Your task to perform on an android device: turn off location Image 0: 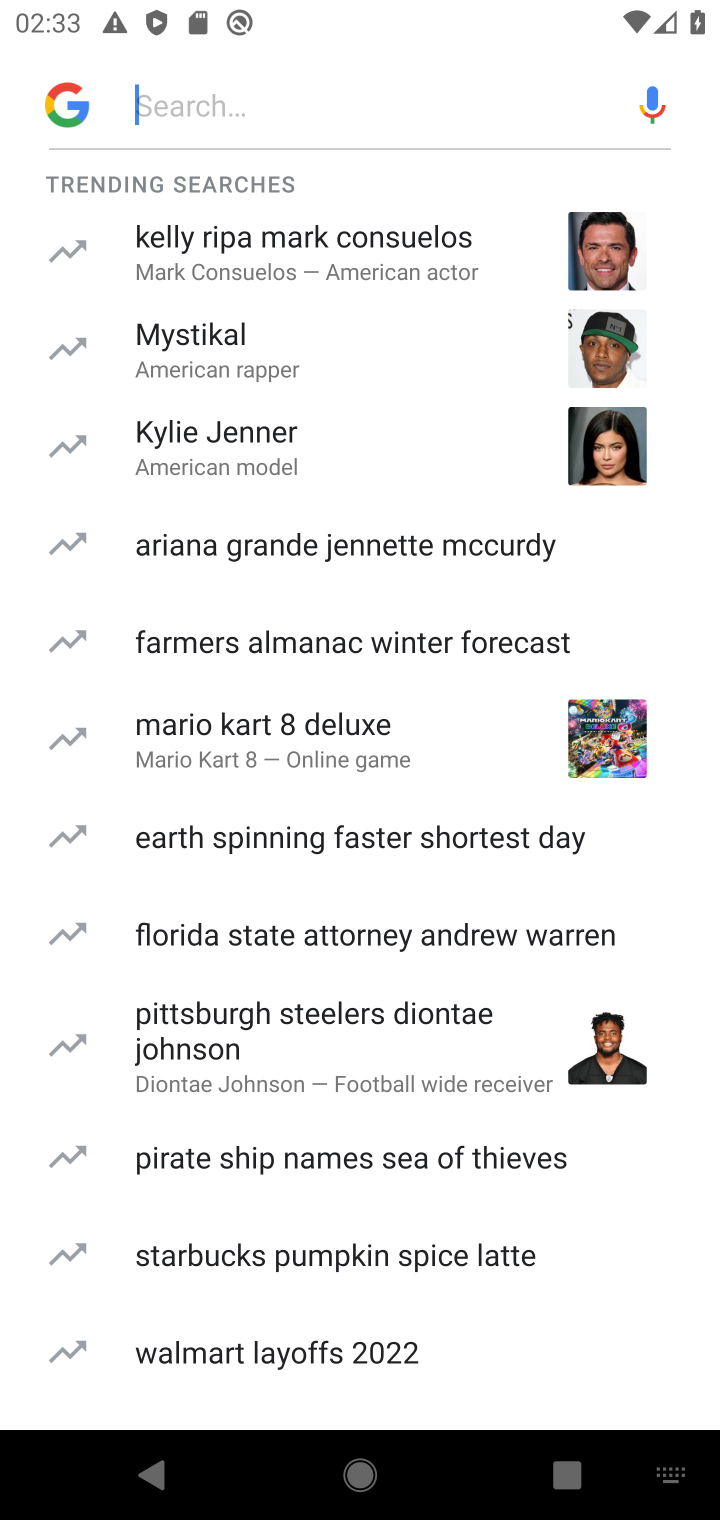
Step 0: press home button
Your task to perform on an android device: turn off location Image 1: 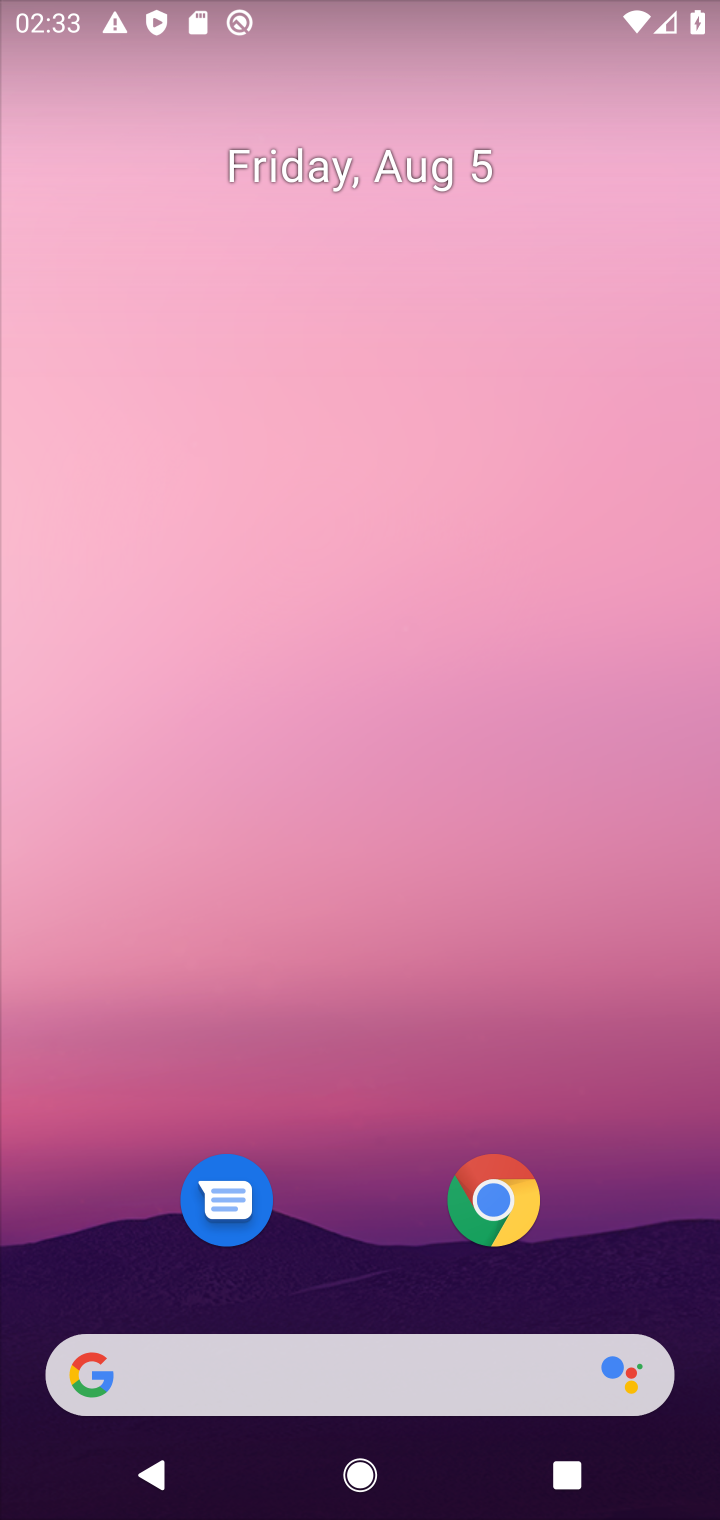
Step 1: drag from (323, 1249) to (335, 159)
Your task to perform on an android device: turn off location Image 2: 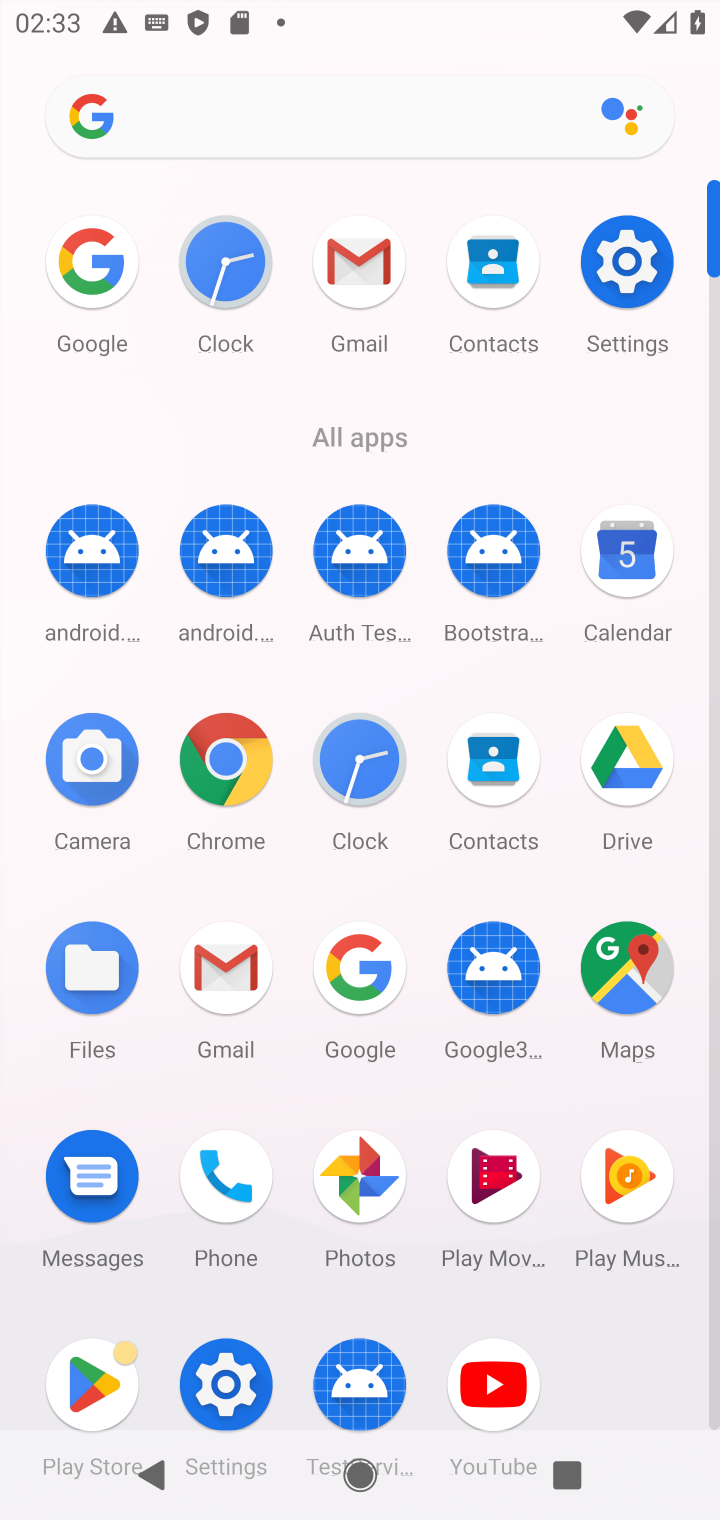
Step 2: click (607, 271)
Your task to perform on an android device: turn off location Image 3: 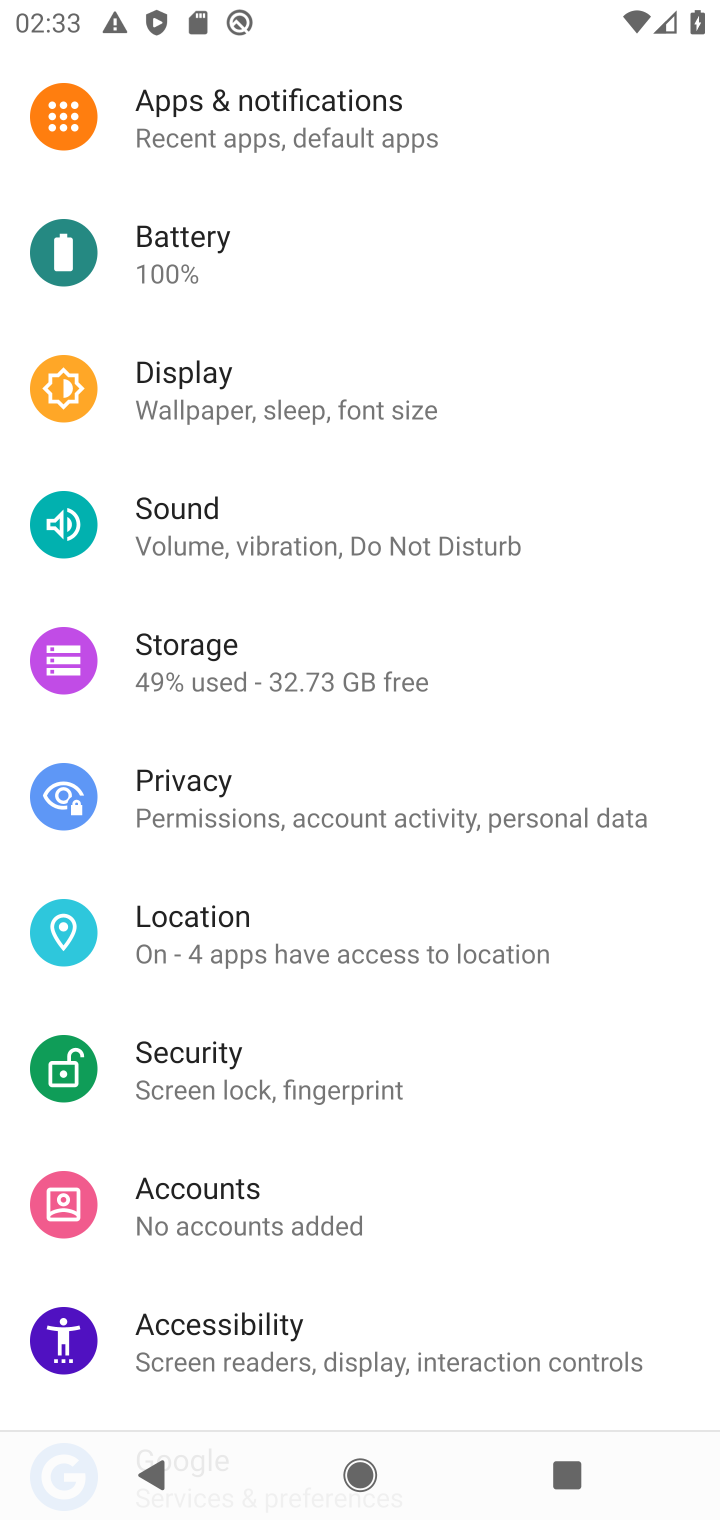
Step 3: click (241, 924)
Your task to perform on an android device: turn off location Image 4: 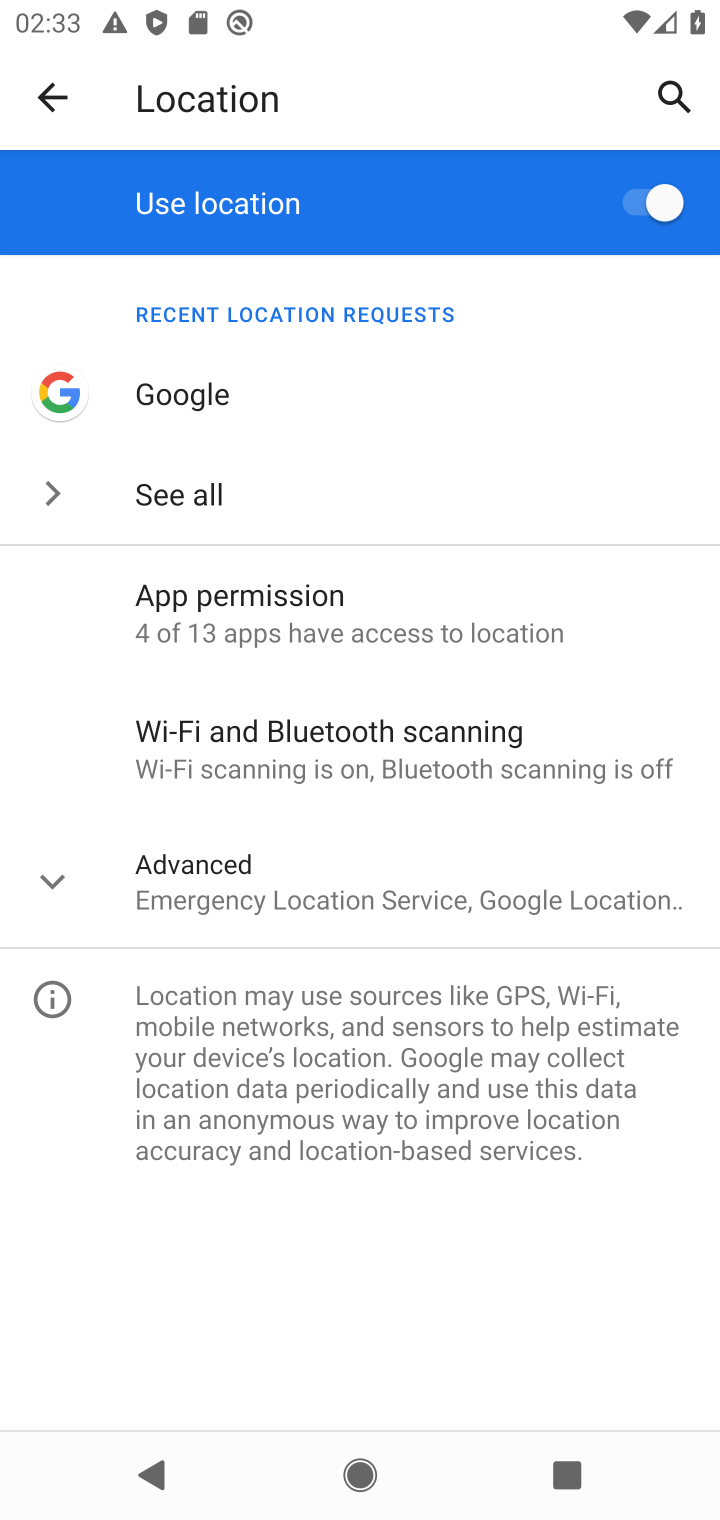
Step 4: click (630, 190)
Your task to perform on an android device: turn off location Image 5: 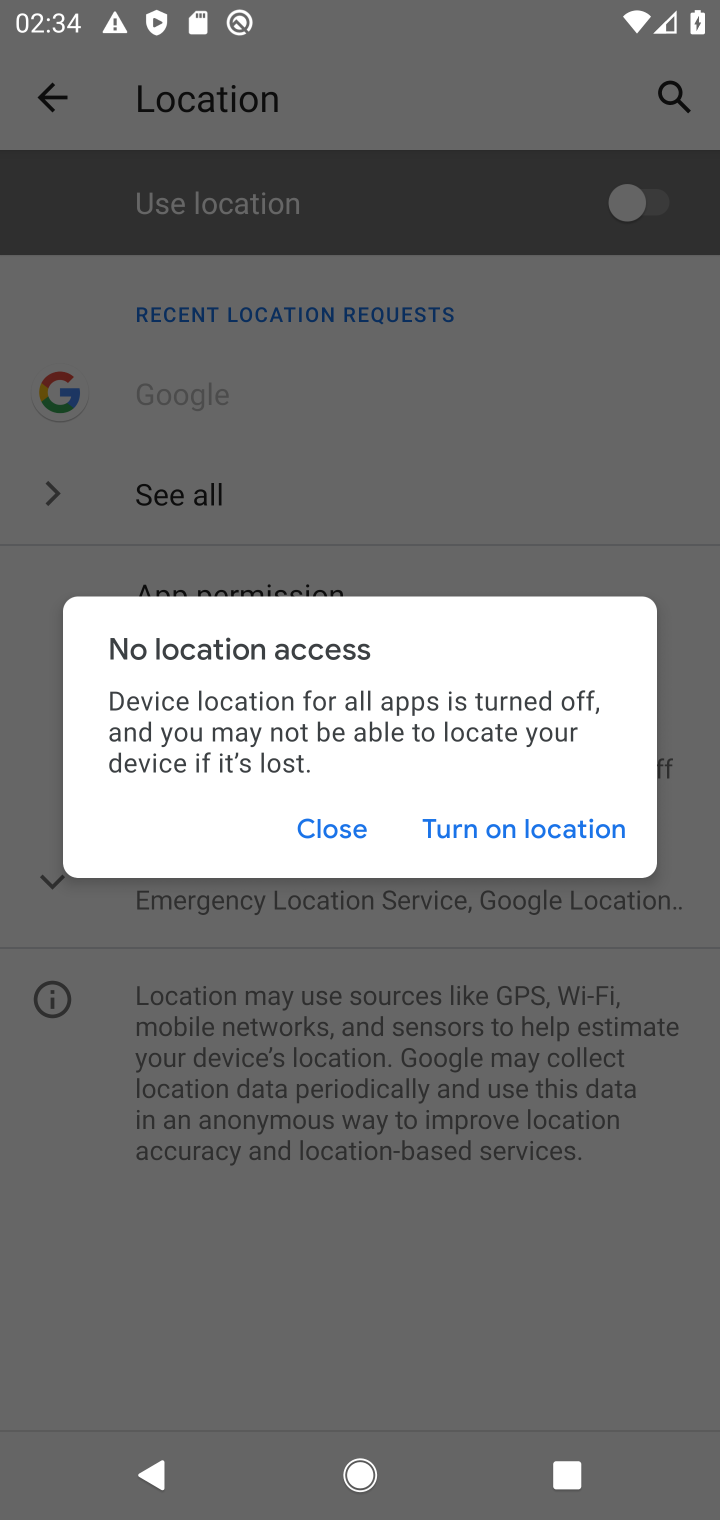
Step 5: task complete